Your task to perform on an android device: clear history in the chrome app Image 0: 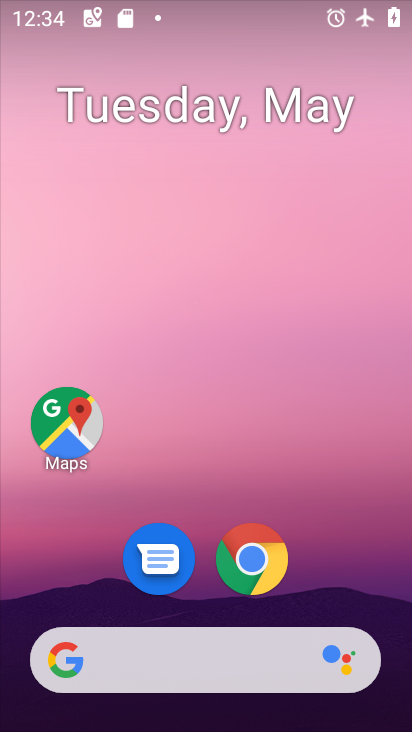
Step 0: click (263, 575)
Your task to perform on an android device: clear history in the chrome app Image 1: 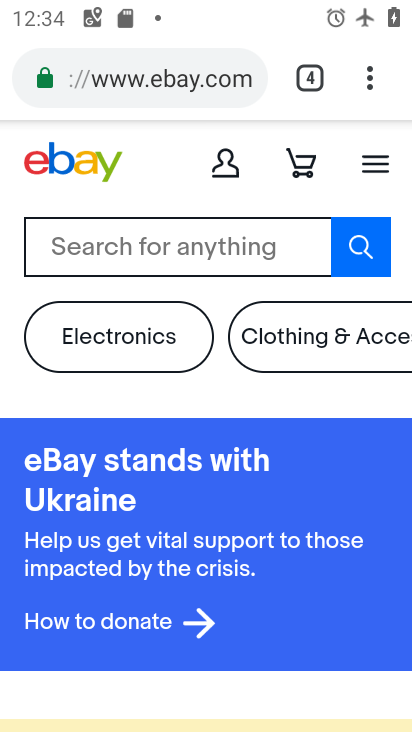
Step 1: click (382, 66)
Your task to perform on an android device: clear history in the chrome app Image 2: 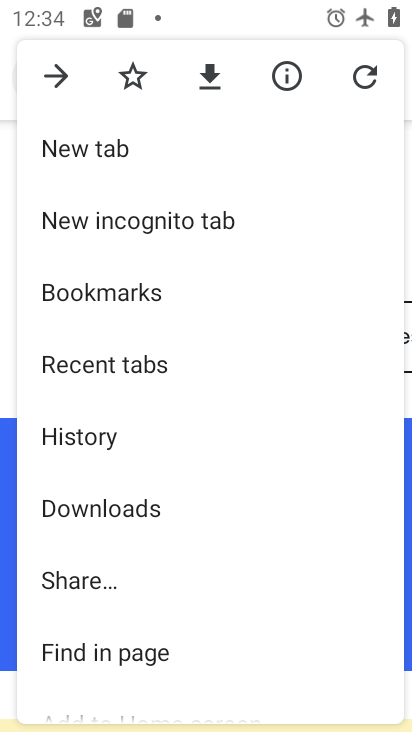
Step 2: click (182, 438)
Your task to perform on an android device: clear history in the chrome app Image 3: 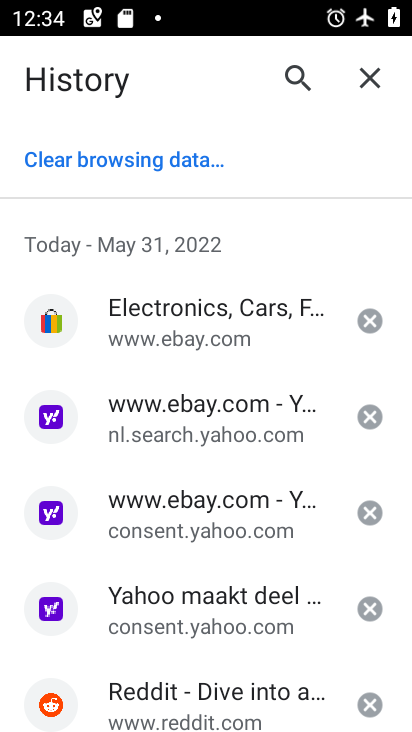
Step 3: click (152, 158)
Your task to perform on an android device: clear history in the chrome app Image 4: 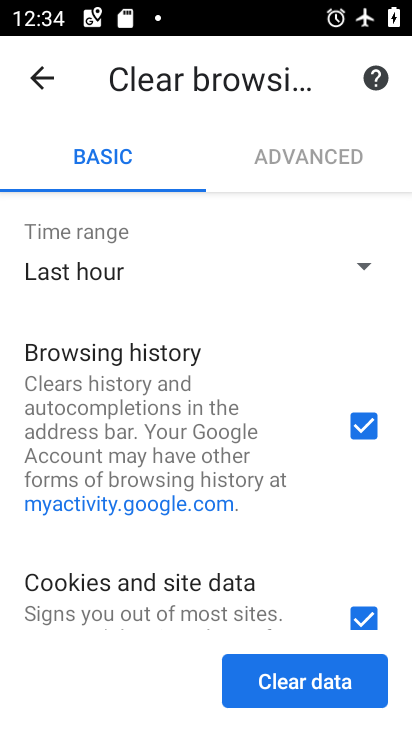
Step 4: click (369, 623)
Your task to perform on an android device: clear history in the chrome app Image 5: 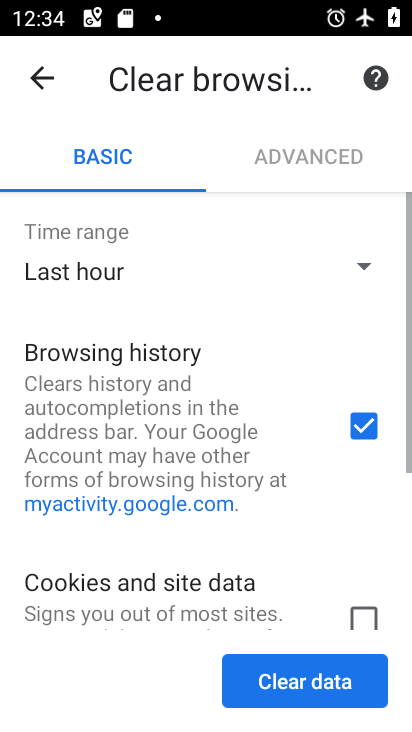
Step 5: click (339, 673)
Your task to perform on an android device: clear history in the chrome app Image 6: 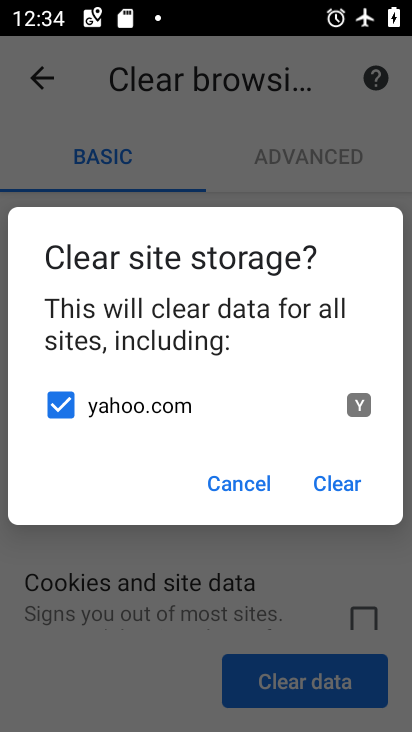
Step 6: click (335, 469)
Your task to perform on an android device: clear history in the chrome app Image 7: 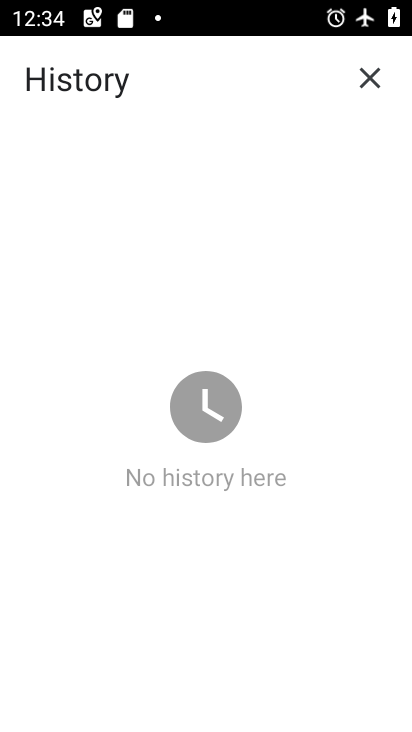
Step 7: task complete